Your task to perform on an android device: turn on data saver in the chrome app Image 0: 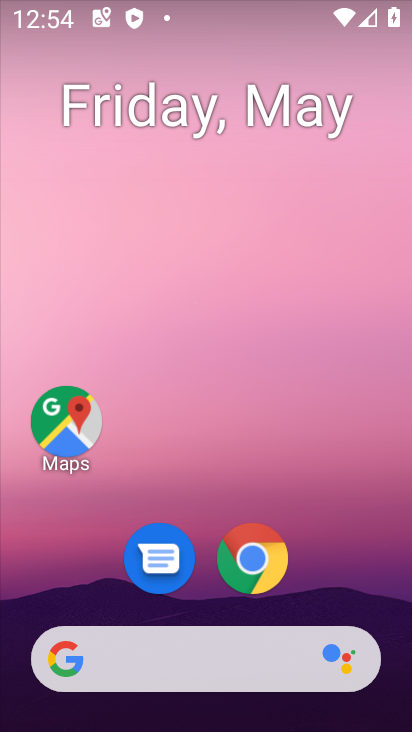
Step 0: drag from (383, 595) to (312, 77)
Your task to perform on an android device: turn on data saver in the chrome app Image 1: 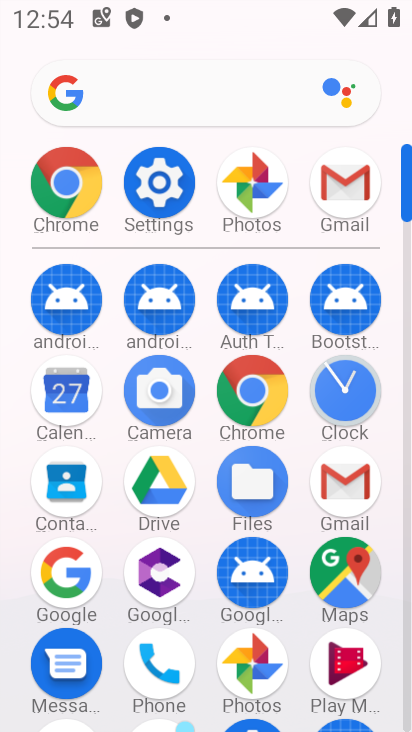
Step 1: click (81, 172)
Your task to perform on an android device: turn on data saver in the chrome app Image 2: 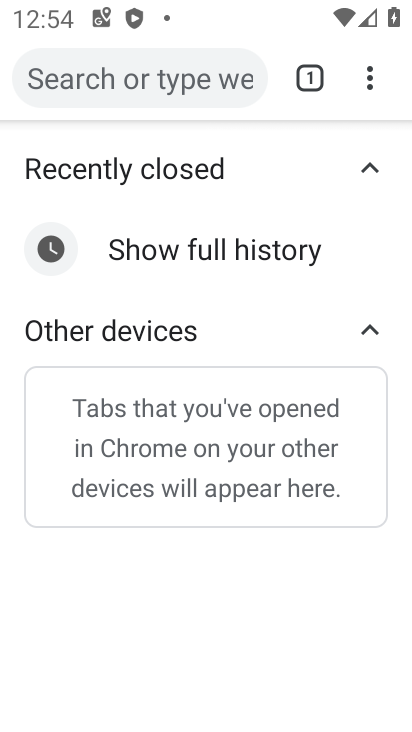
Step 2: click (375, 73)
Your task to perform on an android device: turn on data saver in the chrome app Image 3: 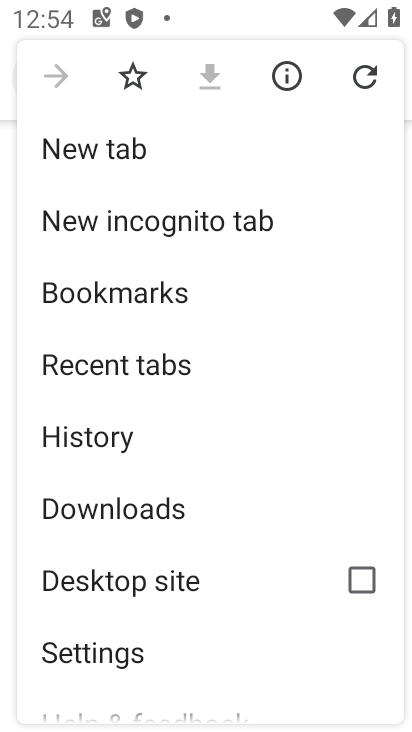
Step 3: drag from (205, 650) to (196, 238)
Your task to perform on an android device: turn on data saver in the chrome app Image 4: 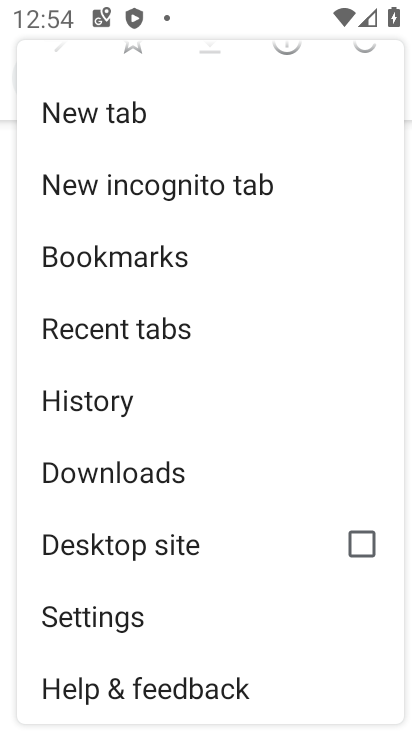
Step 4: click (158, 622)
Your task to perform on an android device: turn on data saver in the chrome app Image 5: 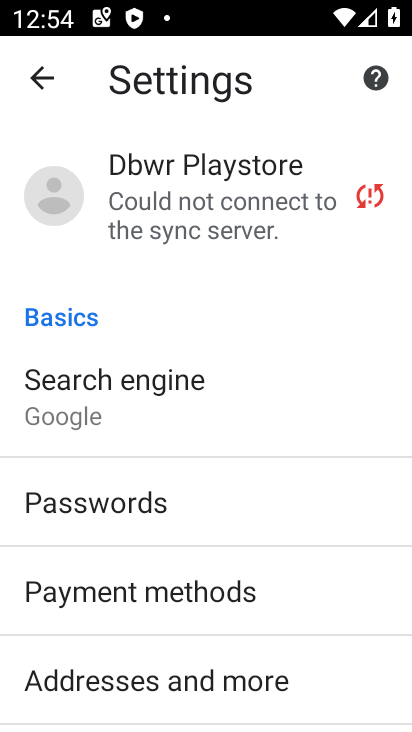
Step 5: drag from (207, 643) to (221, 215)
Your task to perform on an android device: turn on data saver in the chrome app Image 6: 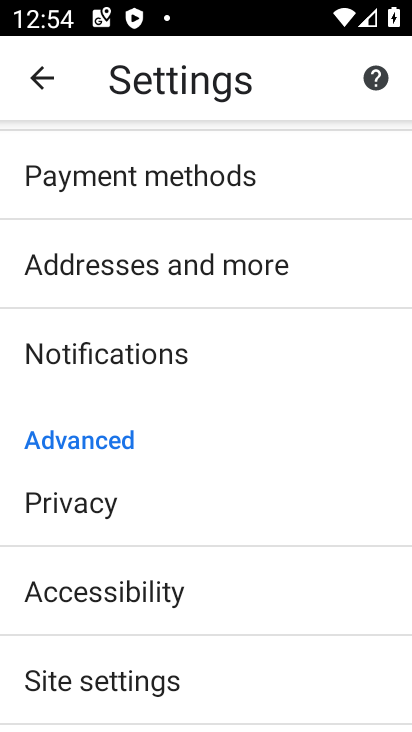
Step 6: drag from (219, 658) to (222, 351)
Your task to perform on an android device: turn on data saver in the chrome app Image 7: 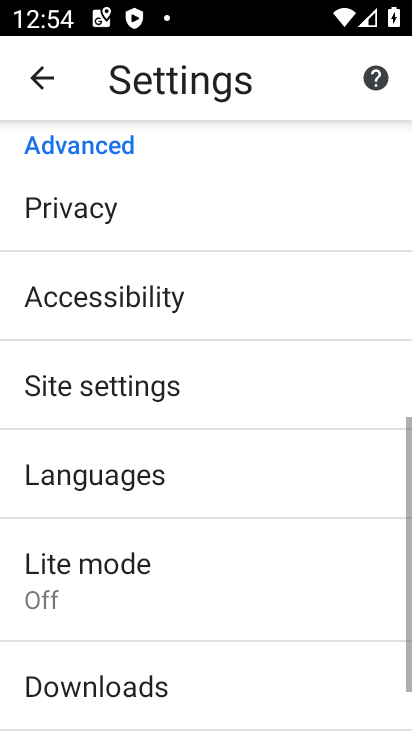
Step 7: click (179, 576)
Your task to perform on an android device: turn on data saver in the chrome app Image 8: 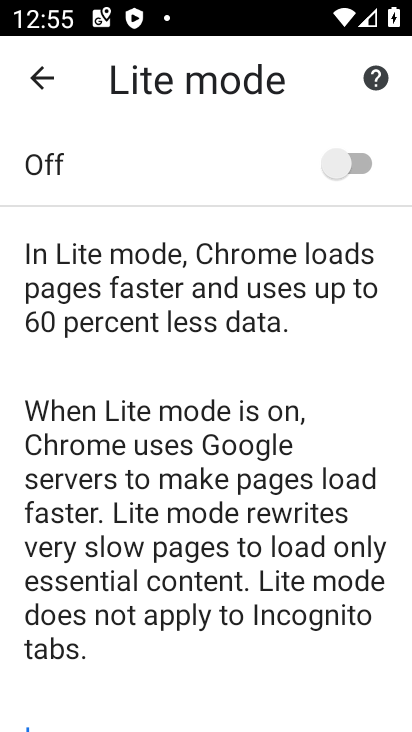
Step 8: click (341, 176)
Your task to perform on an android device: turn on data saver in the chrome app Image 9: 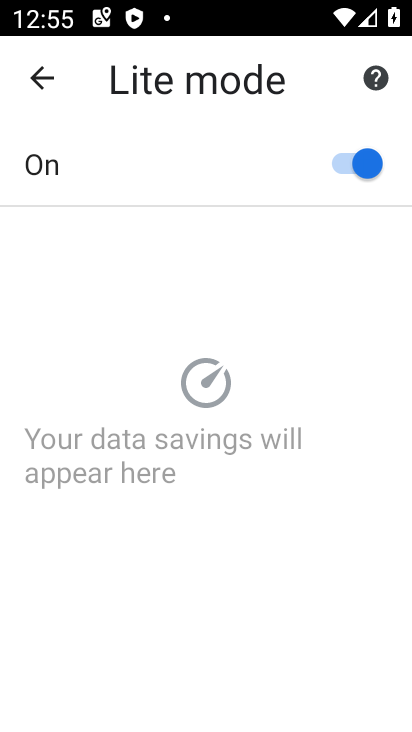
Step 9: task complete